Your task to perform on an android device: Go to privacy settings Image 0: 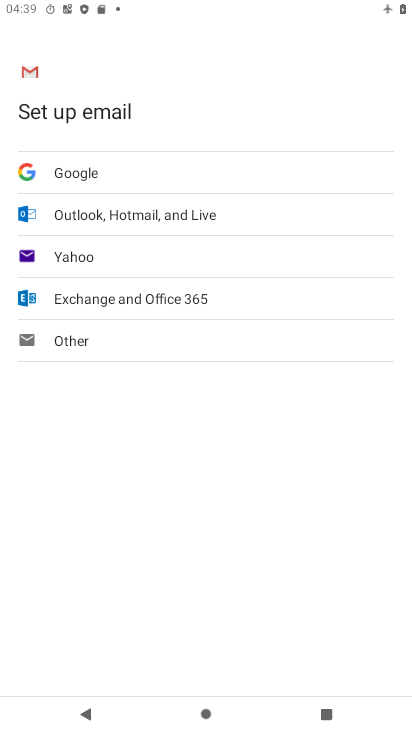
Step 0: press home button
Your task to perform on an android device: Go to privacy settings Image 1: 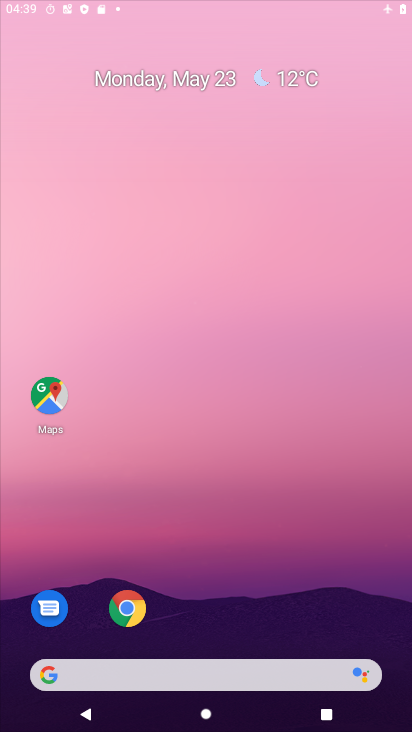
Step 1: drag from (303, 577) to (186, 66)
Your task to perform on an android device: Go to privacy settings Image 2: 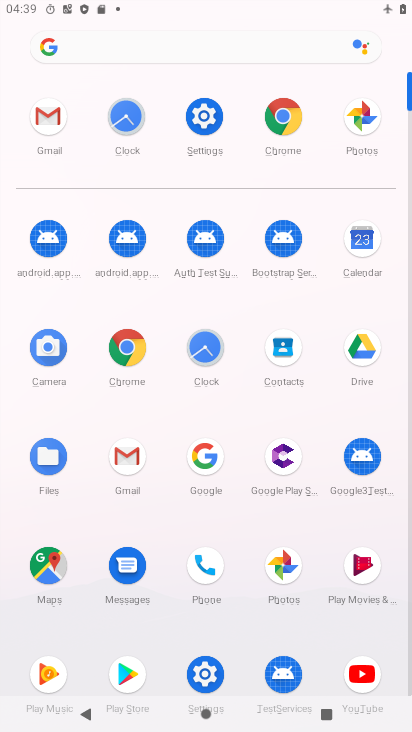
Step 2: click (203, 130)
Your task to perform on an android device: Go to privacy settings Image 3: 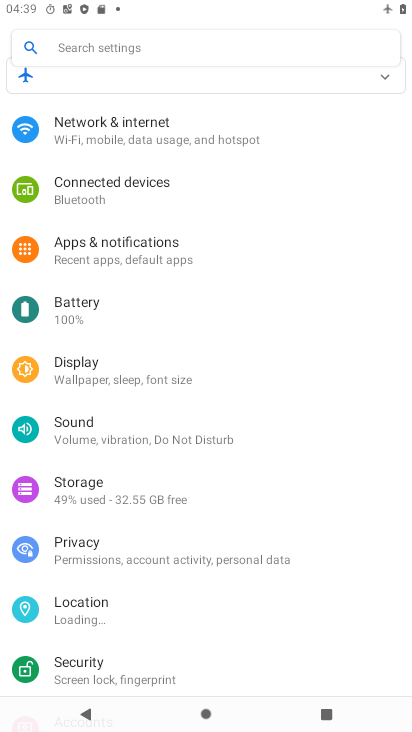
Step 3: click (183, 556)
Your task to perform on an android device: Go to privacy settings Image 4: 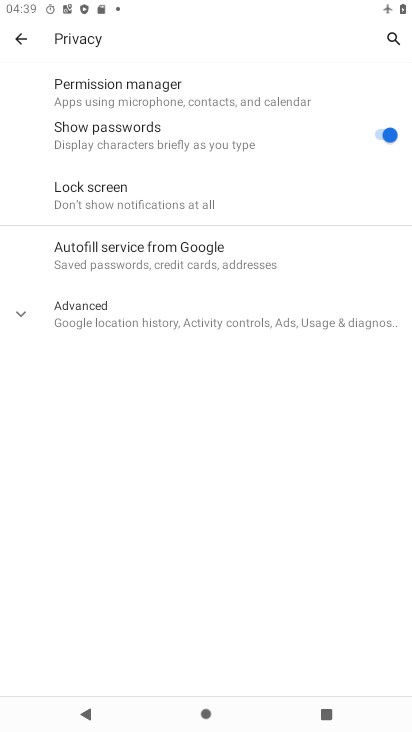
Step 4: task complete